Your task to perform on an android device: Open CNN.com Image 0: 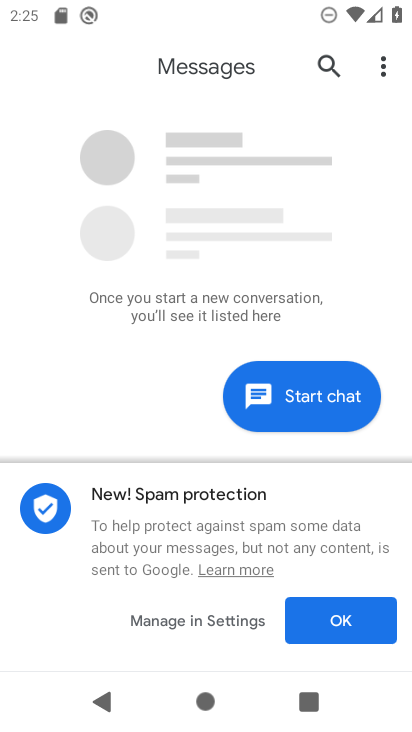
Step 0: press home button
Your task to perform on an android device: Open CNN.com Image 1: 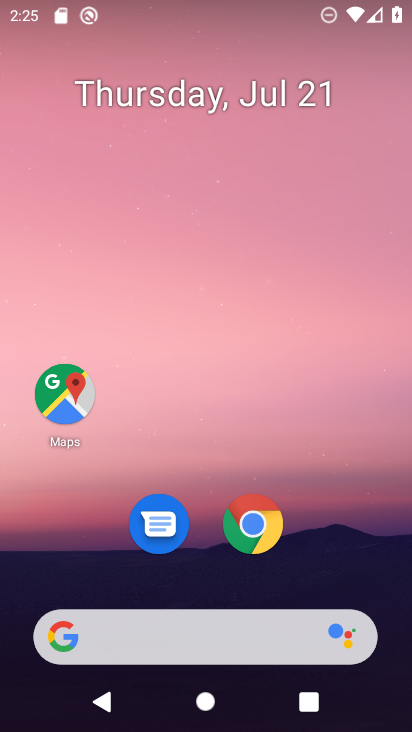
Step 1: click (246, 516)
Your task to perform on an android device: Open CNN.com Image 2: 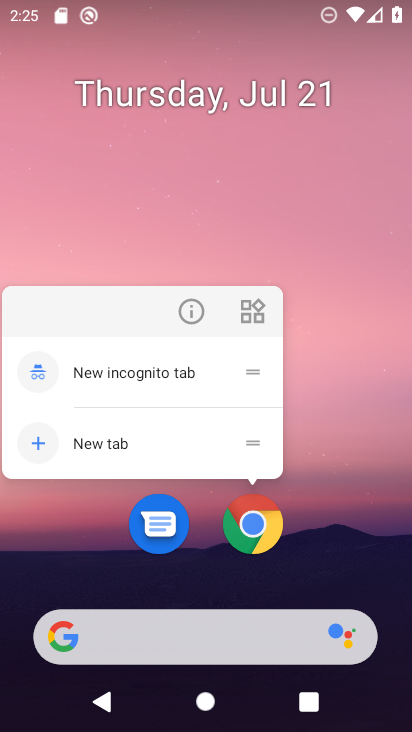
Step 2: click (244, 531)
Your task to perform on an android device: Open CNN.com Image 3: 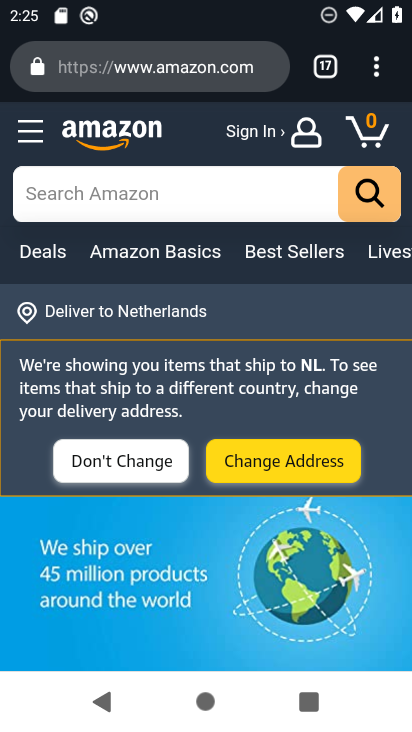
Step 3: drag from (374, 70) to (190, 137)
Your task to perform on an android device: Open CNN.com Image 4: 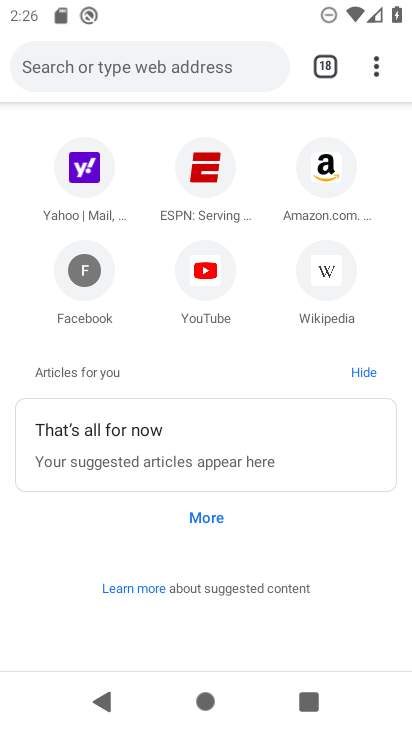
Step 4: click (138, 62)
Your task to perform on an android device: Open CNN.com Image 5: 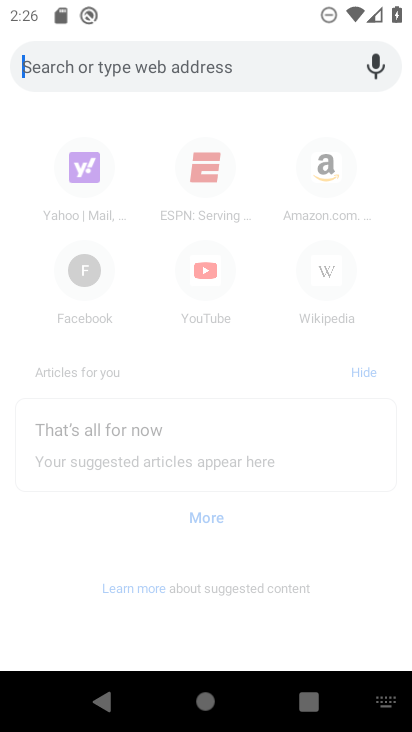
Step 5: type "cnn.com"
Your task to perform on an android device: Open CNN.com Image 6: 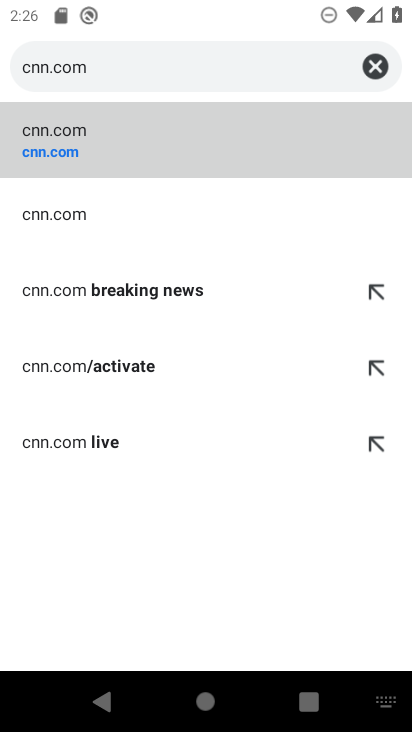
Step 6: click (50, 147)
Your task to perform on an android device: Open CNN.com Image 7: 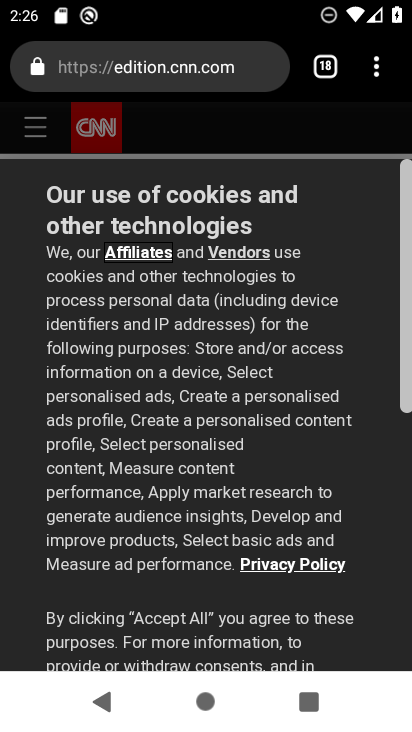
Step 7: drag from (158, 617) to (242, 183)
Your task to perform on an android device: Open CNN.com Image 8: 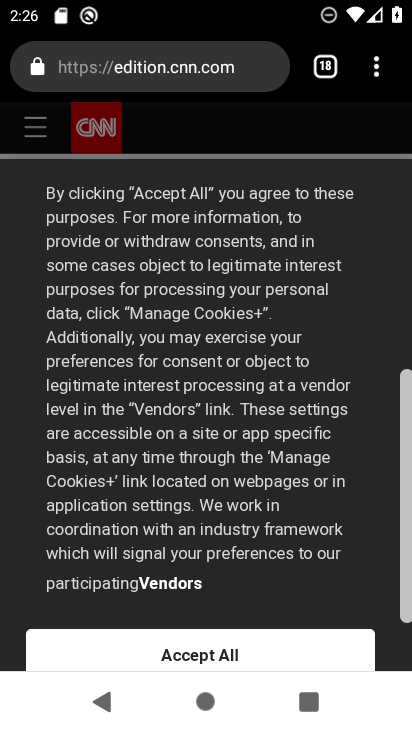
Step 8: drag from (212, 581) to (269, 134)
Your task to perform on an android device: Open CNN.com Image 9: 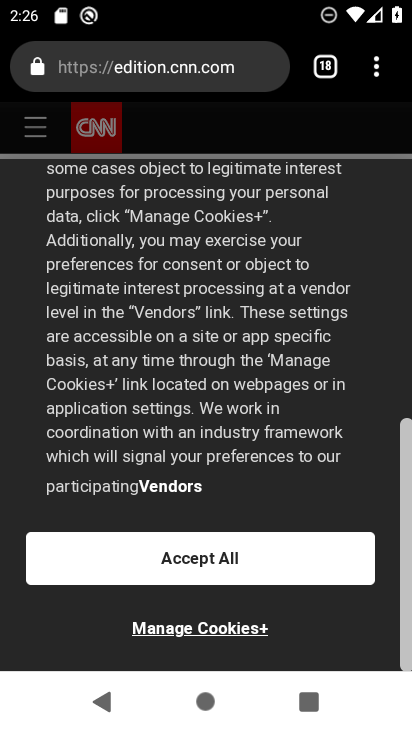
Step 9: click (191, 562)
Your task to perform on an android device: Open CNN.com Image 10: 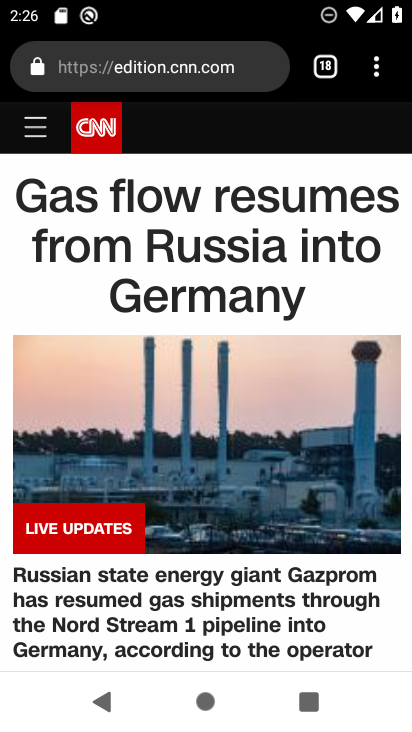
Step 10: task complete